Your task to perform on an android device: Clear the cart on newegg.com. Search for usb-b on newegg.com, select the first entry, add it to the cart, then select checkout. Image 0: 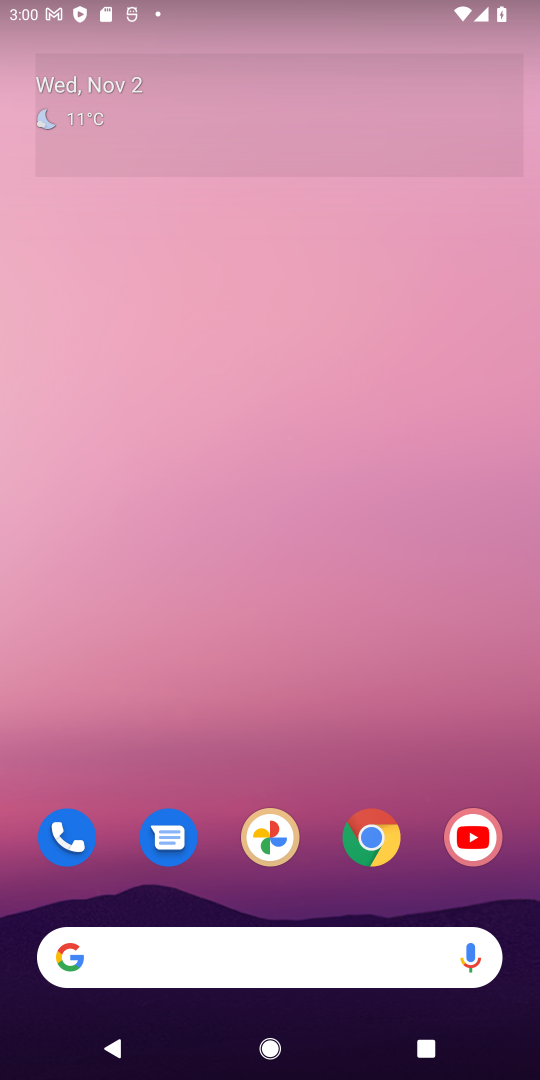
Step 0: press home button
Your task to perform on an android device: Clear the cart on newegg.com. Search for usb-b on newegg.com, select the first entry, add it to the cart, then select checkout. Image 1: 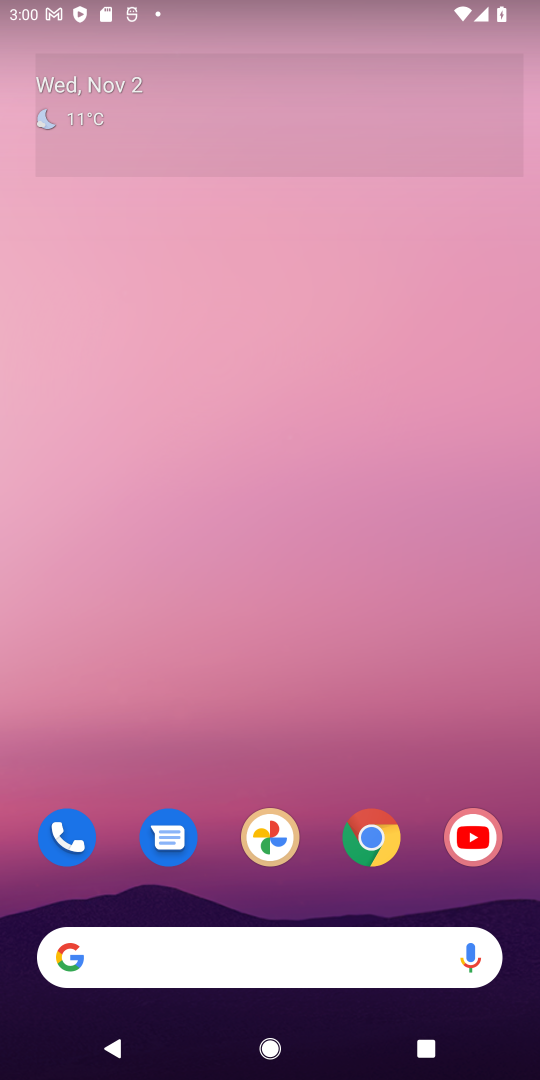
Step 1: drag from (317, 807) to (323, 101)
Your task to perform on an android device: Clear the cart on newegg.com. Search for usb-b on newegg.com, select the first entry, add it to the cart, then select checkout. Image 2: 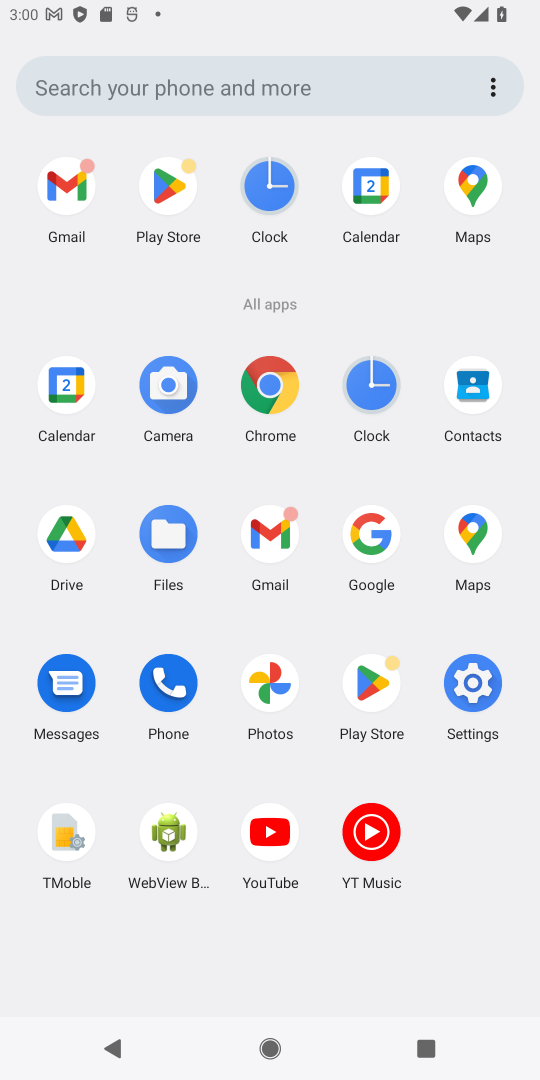
Step 2: click (271, 381)
Your task to perform on an android device: Clear the cart on newegg.com. Search for usb-b on newegg.com, select the first entry, add it to the cart, then select checkout. Image 3: 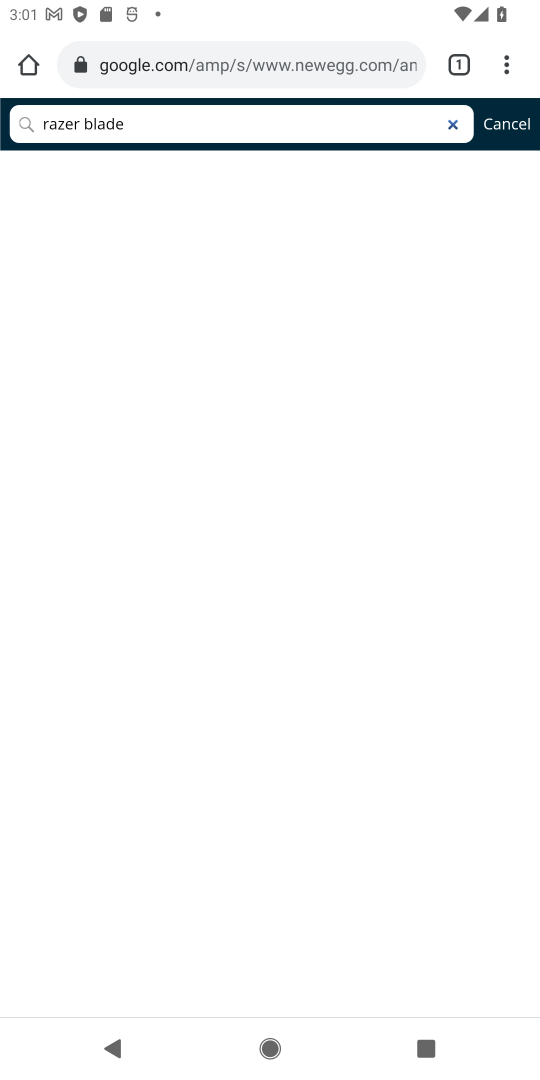
Step 3: click (447, 125)
Your task to perform on an android device: Clear the cart on newegg.com. Search for usb-b on newegg.com, select the first entry, add it to the cart, then select checkout. Image 4: 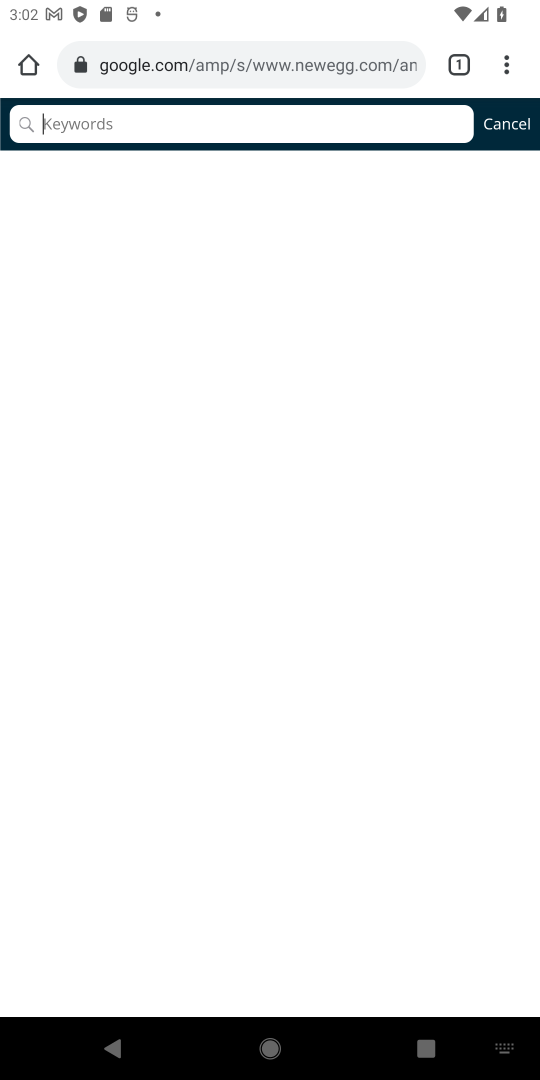
Step 4: type "usb-b"
Your task to perform on an android device: Clear the cart on newegg.com. Search for usb-b on newegg.com, select the first entry, add it to the cart, then select checkout. Image 5: 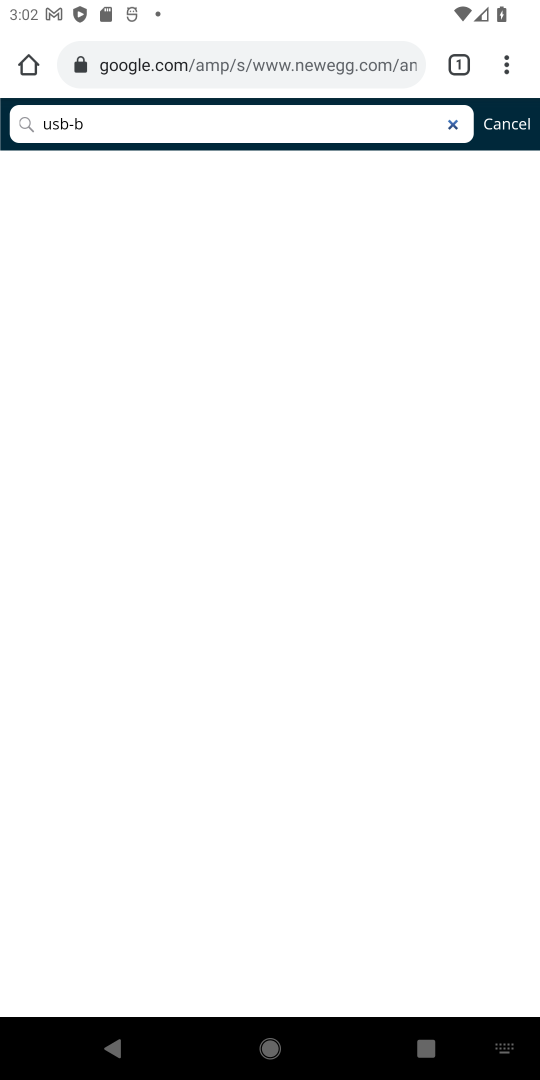
Step 5: task complete